Your task to perform on an android device: Find coffee shops on Maps Image 0: 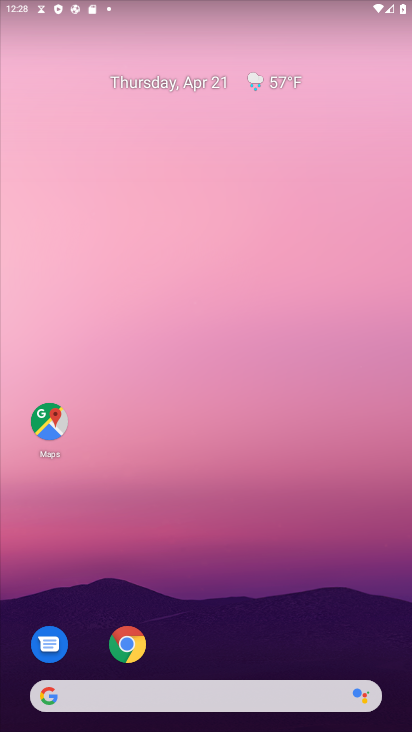
Step 0: drag from (201, 615) to (309, 31)
Your task to perform on an android device: Find coffee shops on Maps Image 1: 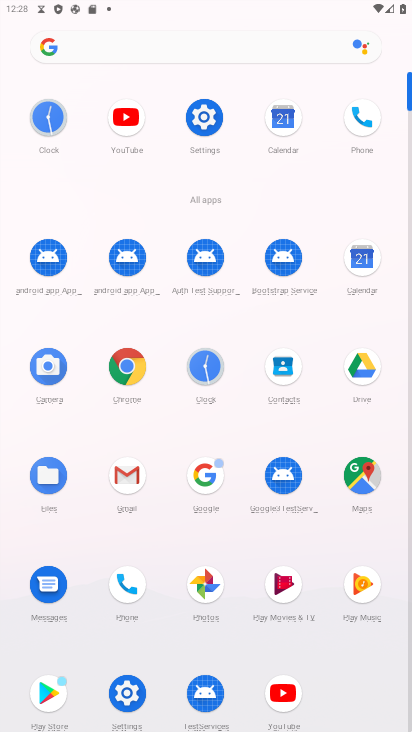
Step 1: click (357, 520)
Your task to perform on an android device: Find coffee shops on Maps Image 2: 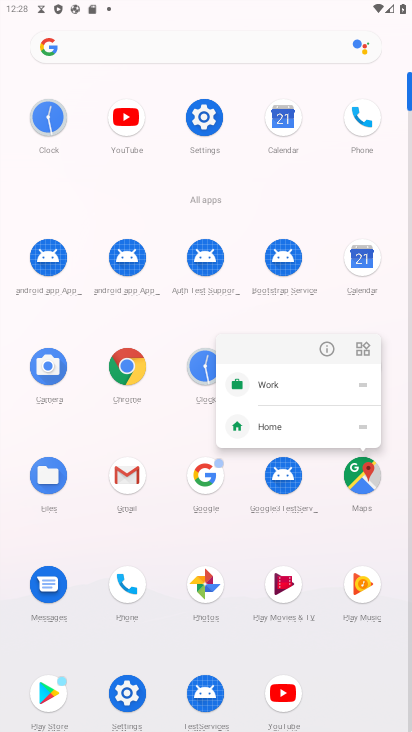
Step 2: click (360, 489)
Your task to perform on an android device: Find coffee shops on Maps Image 3: 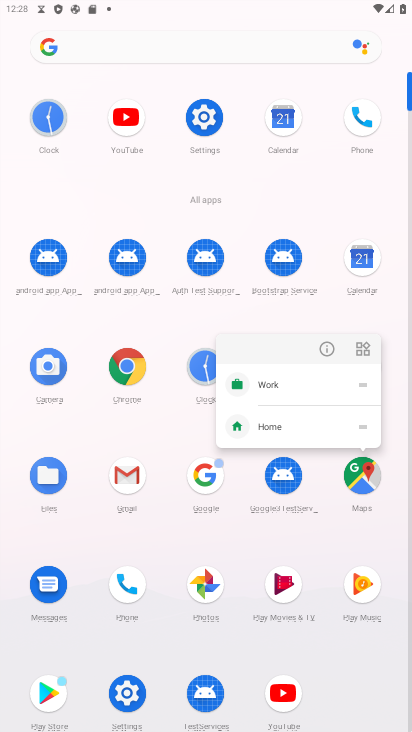
Step 3: click (361, 488)
Your task to perform on an android device: Find coffee shops on Maps Image 4: 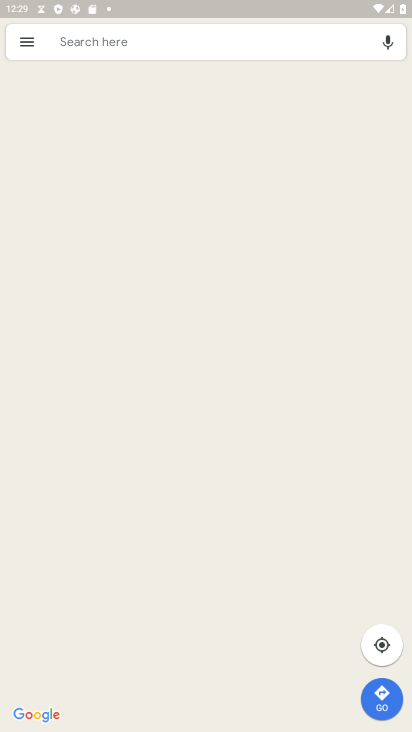
Step 4: click (217, 36)
Your task to perform on an android device: Find coffee shops on Maps Image 5: 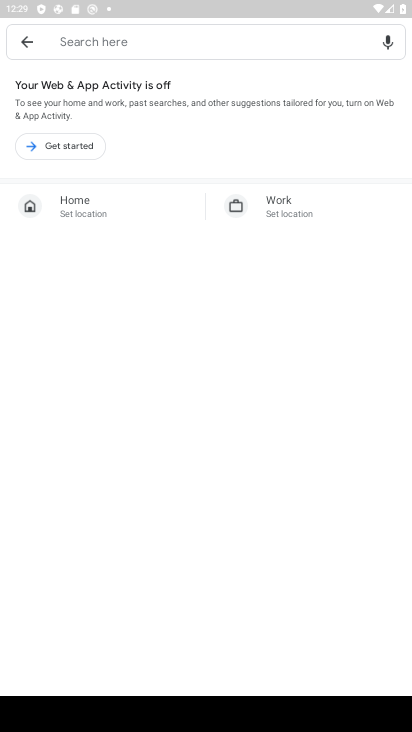
Step 5: click (60, 150)
Your task to perform on an android device: Find coffee shops on Maps Image 6: 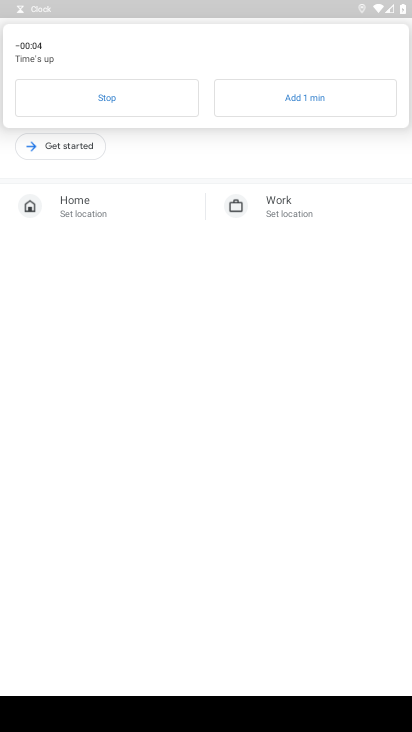
Step 6: click (100, 101)
Your task to perform on an android device: Find coffee shops on Maps Image 7: 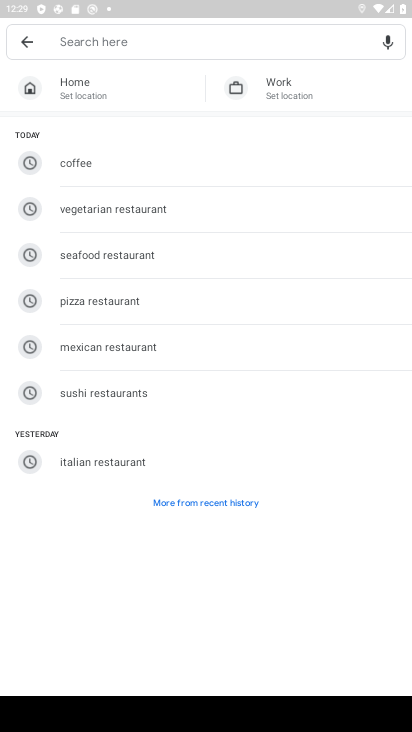
Step 7: click (101, 150)
Your task to perform on an android device: Find coffee shops on Maps Image 8: 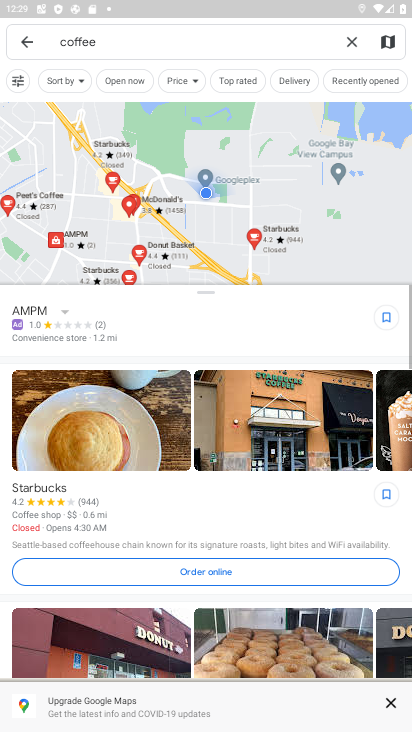
Step 8: task complete